Your task to perform on an android device: change the clock display to analog Image 0: 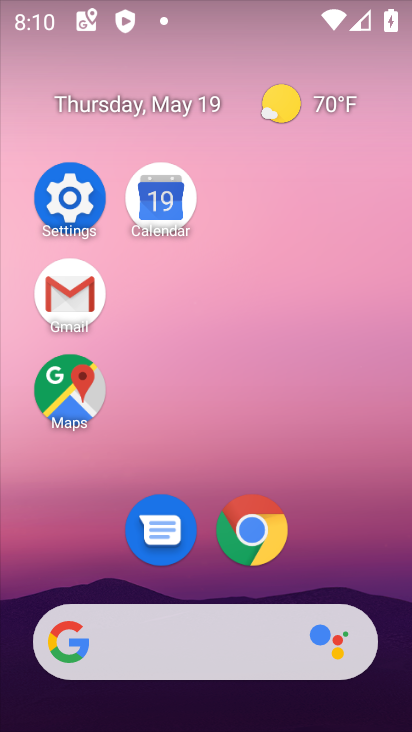
Step 0: drag from (329, 561) to (332, 50)
Your task to perform on an android device: change the clock display to analog Image 1: 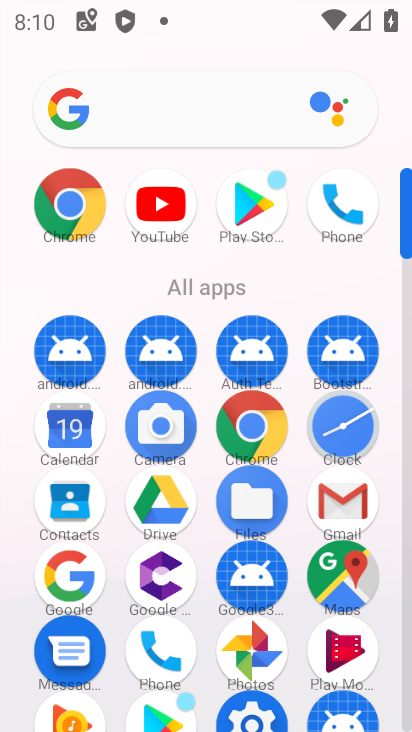
Step 1: drag from (340, 420) to (247, 256)
Your task to perform on an android device: change the clock display to analog Image 2: 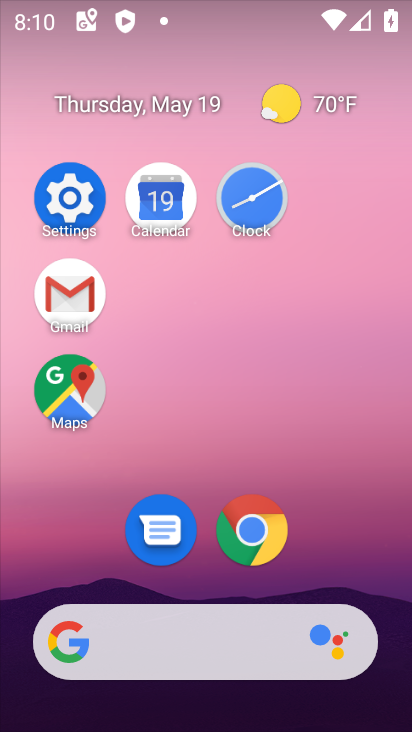
Step 2: click (260, 202)
Your task to perform on an android device: change the clock display to analog Image 3: 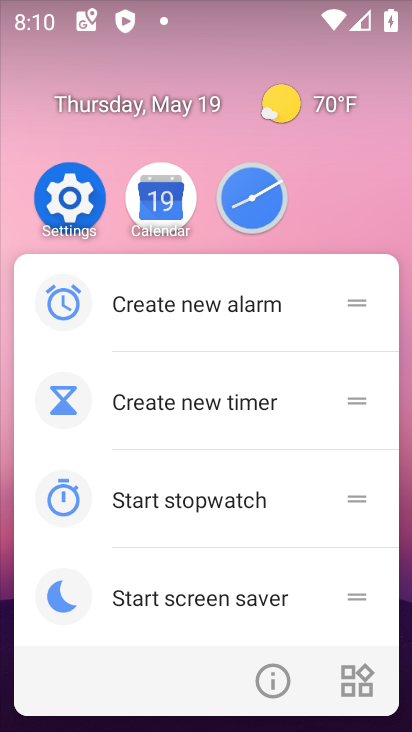
Step 3: click (253, 195)
Your task to perform on an android device: change the clock display to analog Image 4: 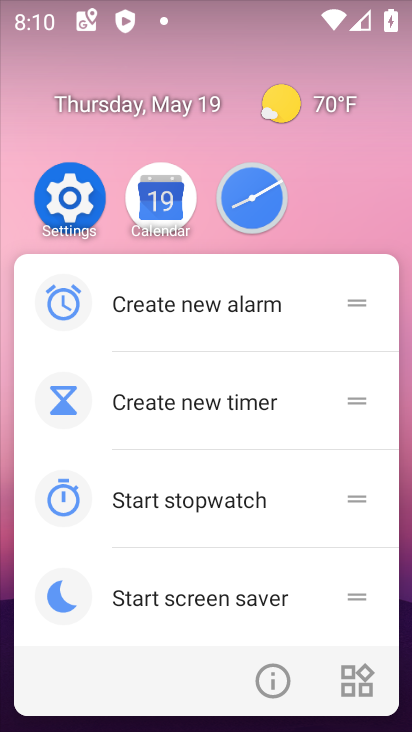
Step 4: click (272, 187)
Your task to perform on an android device: change the clock display to analog Image 5: 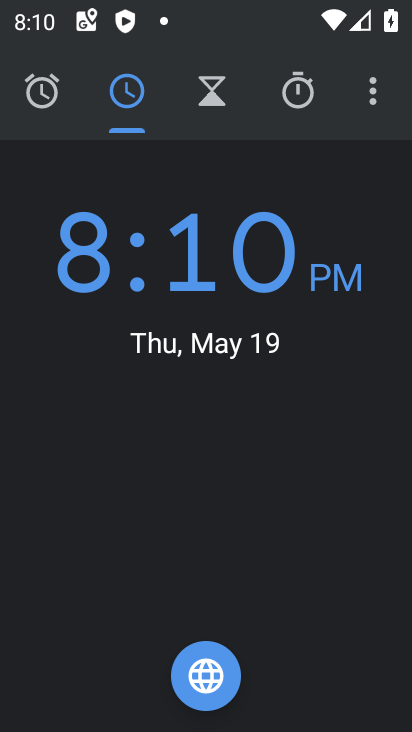
Step 5: click (378, 77)
Your task to perform on an android device: change the clock display to analog Image 6: 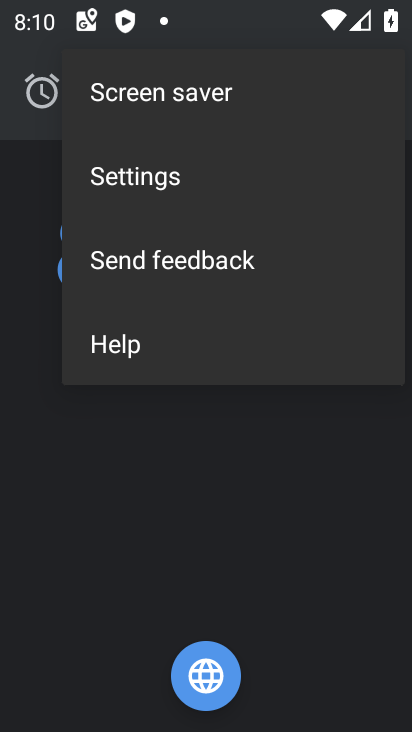
Step 6: click (261, 203)
Your task to perform on an android device: change the clock display to analog Image 7: 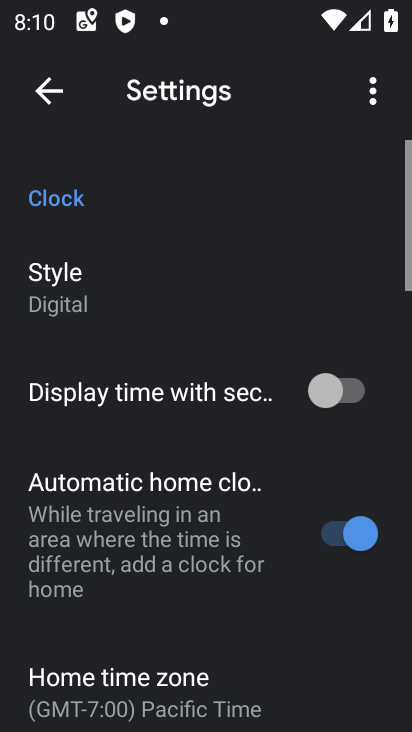
Step 7: click (106, 292)
Your task to perform on an android device: change the clock display to analog Image 8: 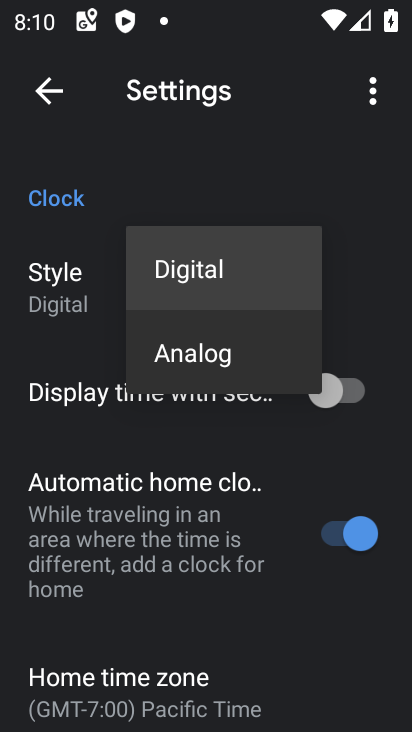
Step 8: click (218, 333)
Your task to perform on an android device: change the clock display to analog Image 9: 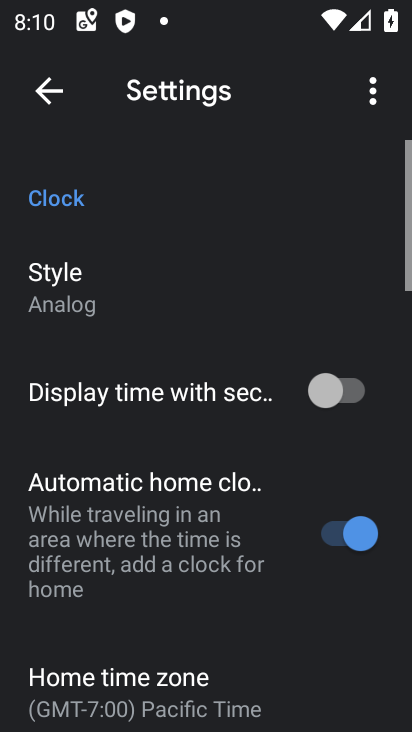
Step 9: task complete